Your task to perform on an android device: change the clock display to digital Image 0: 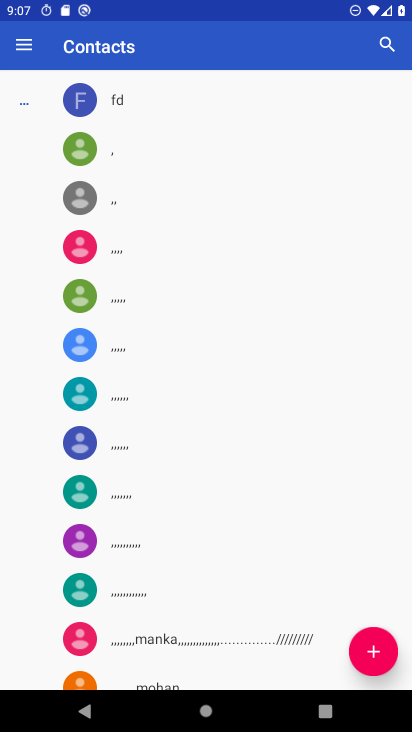
Step 0: press home button
Your task to perform on an android device: change the clock display to digital Image 1: 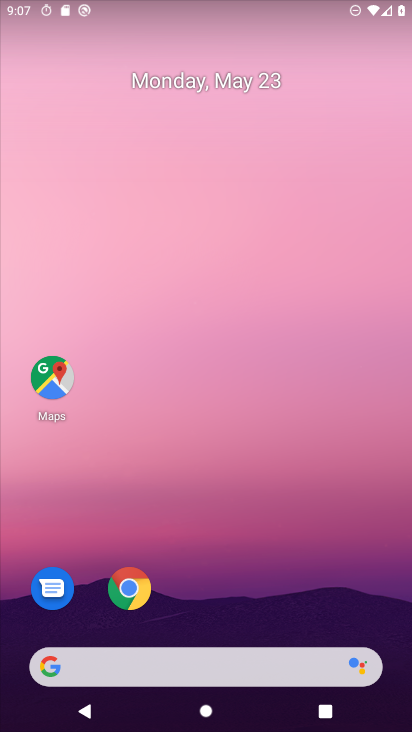
Step 1: drag from (382, 687) to (354, 273)
Your task to perform on an android device: change the clock display to digital Image 2: 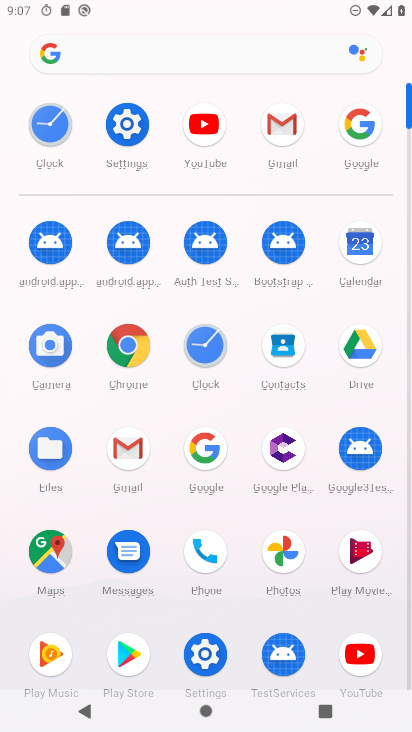
Step 2: click (200, 345)
Your task to perform on an android device: change the clock display to digital Image 3: 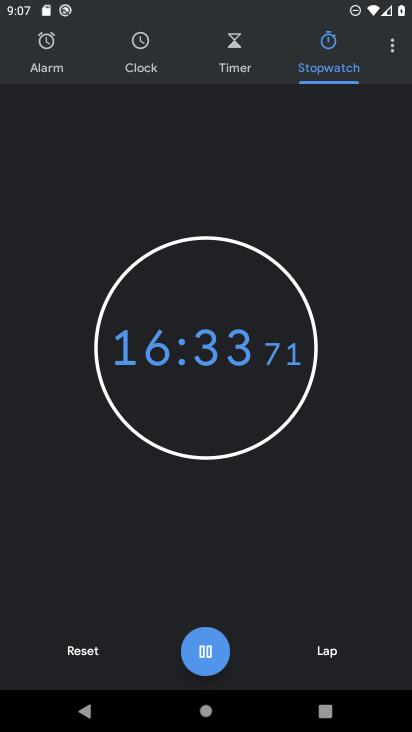
Step 3: click (393, 43)
Your task to perform on an android device: change the clock display to digital Image 4: 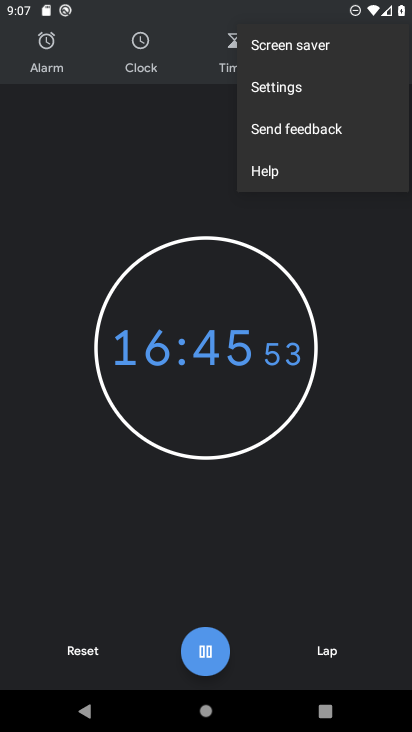
Step 4: click (255, 86)
Your task to perform on an android device: change the clock display to digital Image 5: 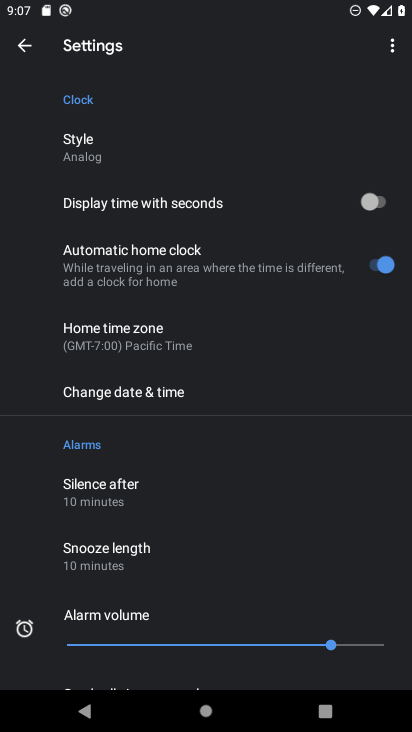
Step 5: click (87, 138)
Your task to perform on an android device: change the clock display to digital Image 6: 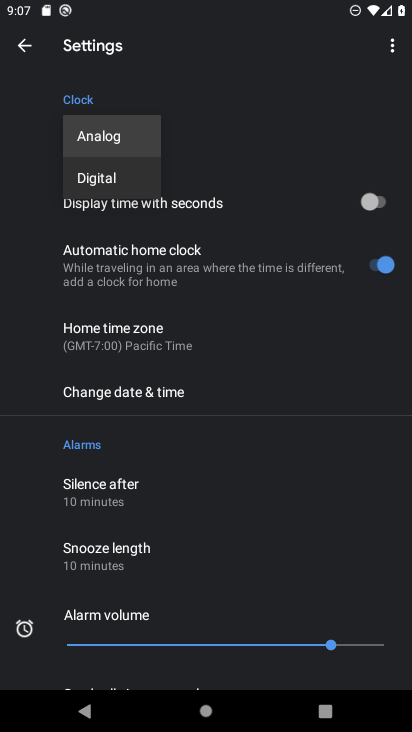
Step 6: click (106, 171)
Your task to perform on an android device: change the clock display to digital Image 7: 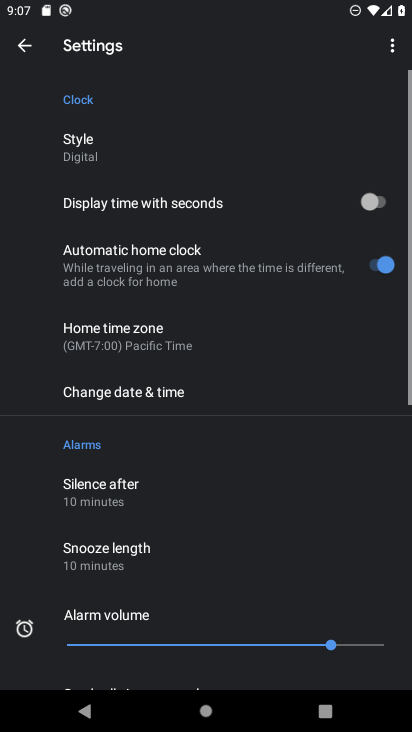
Step 7: task complete